Your task to perform on an android device: turn smart compose on in the gmail app Image 0: 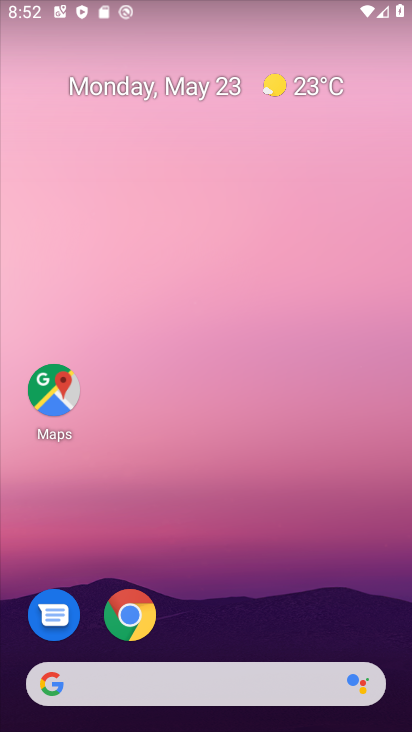
Step 0: drag from (245, 585) to (262, 146)
Your task to perform on an android device: turn smart compose on in the gmail app Image 1: 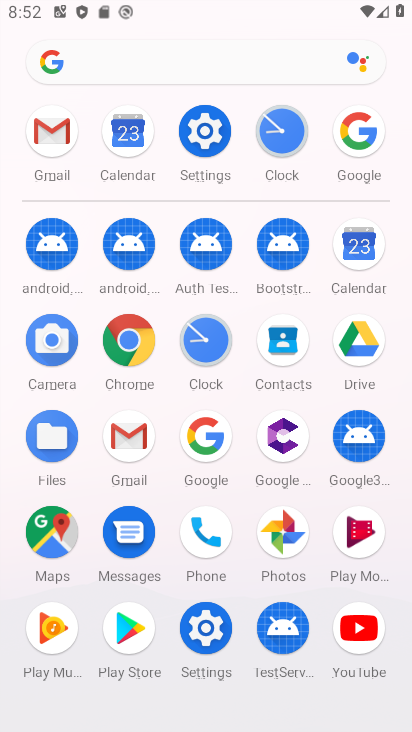
Step 1: click (52, 131)
Your task to perform on an android device: turn smart compose on in the gmail app Image 2: 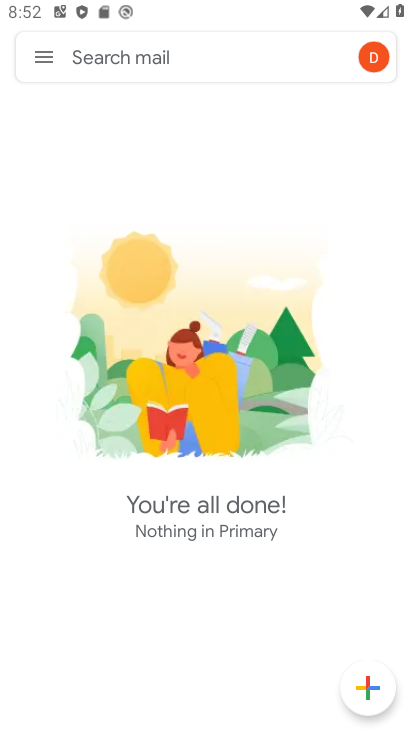
Step 2: click (42, 56)
Your task to perform on an android device: turn smart compose on in the gmail app Image 3: 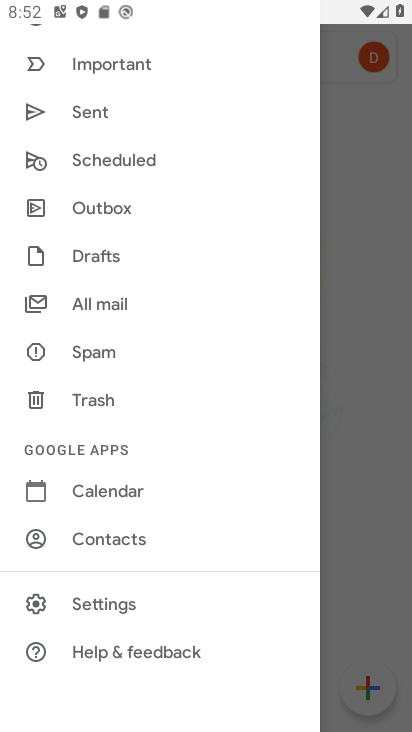
Step 3: click (111, 606)
Your task to perform on an android device: turn smart compose on in the gmail app Image 4: 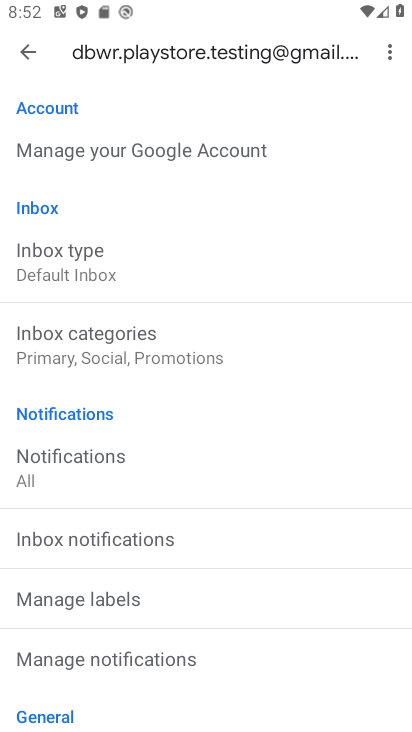
Step 4: task complete